Your task to perform on an android device: toggle notifications settings in the gmail app Image 0: 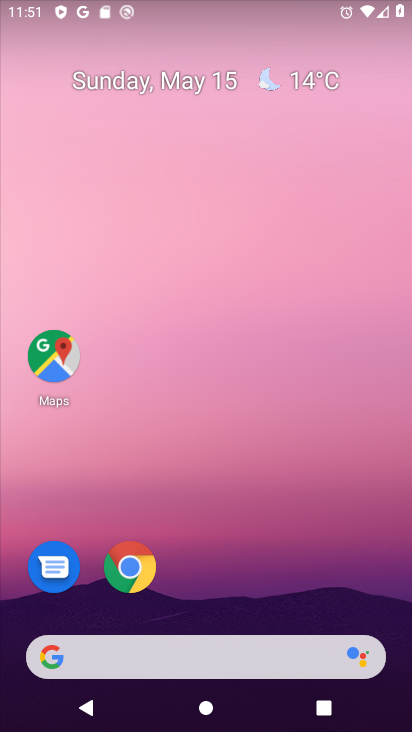
Step 0: drag from (256, 594) to (254, 0)
Your task to perform on an android device: toggle notifications settings in the gmail app Image 1: 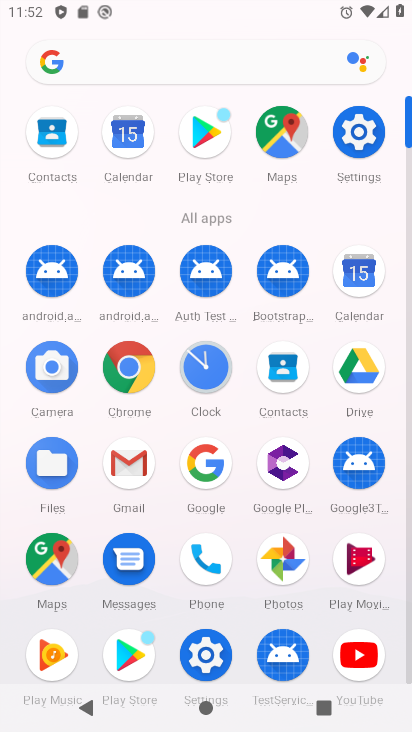
Step 1: click (123, 461)
Your task to perform on an android device: toggle notifications settings in the gmail app Image 2: 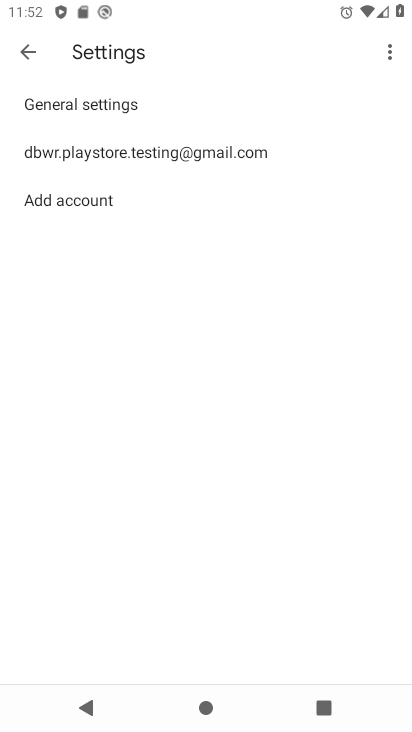
Step 2: click (159, 157)
Your task to perform on an android device: toggle notifications settings in the gmail app Image 3: 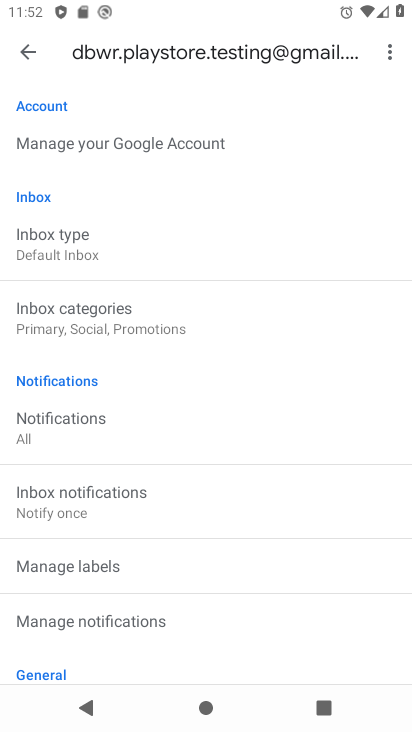
Step 3: click (169, 624)
Your task to perform on an android device: toggle notifications settings in the gmail app Image 4: 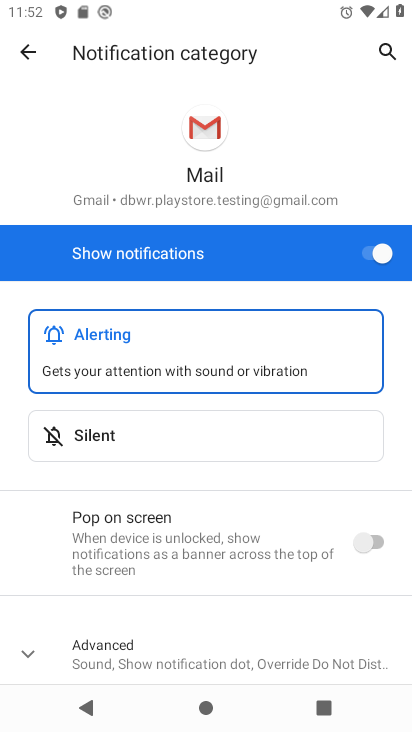
Step 4: click (373, 246)
Your task to perform on an android device: toggle notifications settings in the gmail app Image 5: 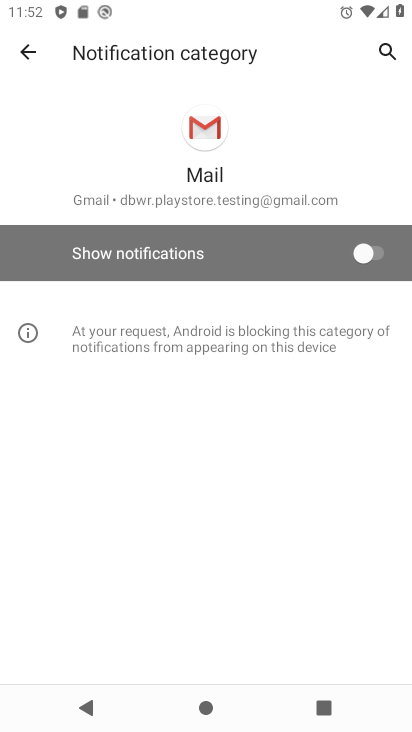
Step 5: task complete